Your task to perform on an android device: Go to Maps Image 0: 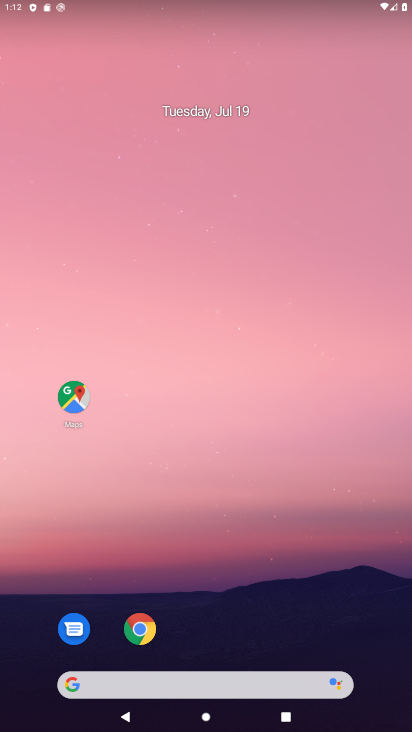
Step 0: click (76, 396)
Your task to perform on an android device: Go to Maps Image 1: 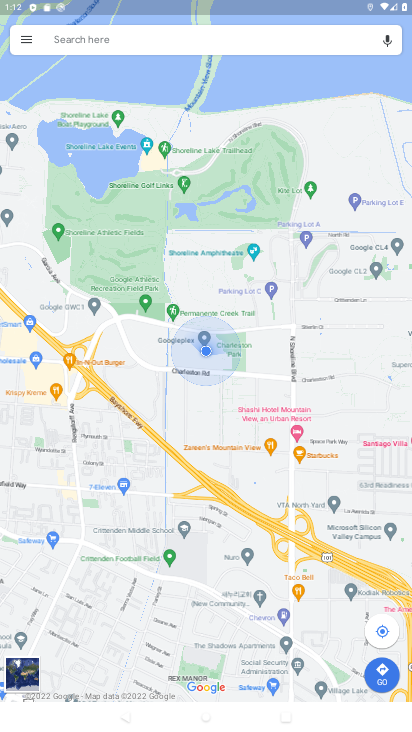
Step 1: task complete